Your task to perform on an android device: delete the emails in spam in the gmail app Image 0: 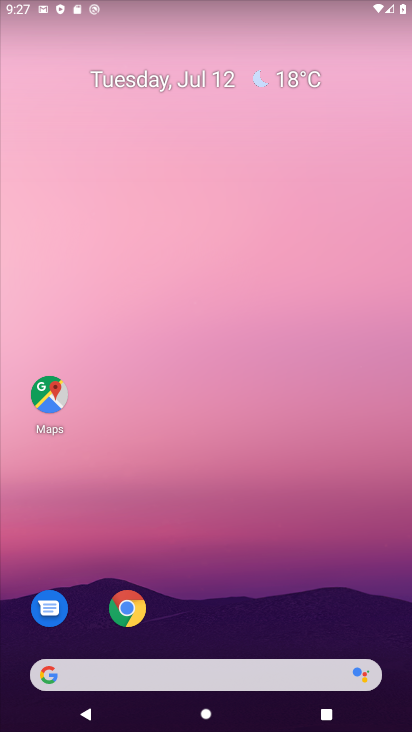
Step 0: drag from (263, 577) to (219, 171)
Your task to perform on an android device: delete the emails in spam in the gmail app Image 1: 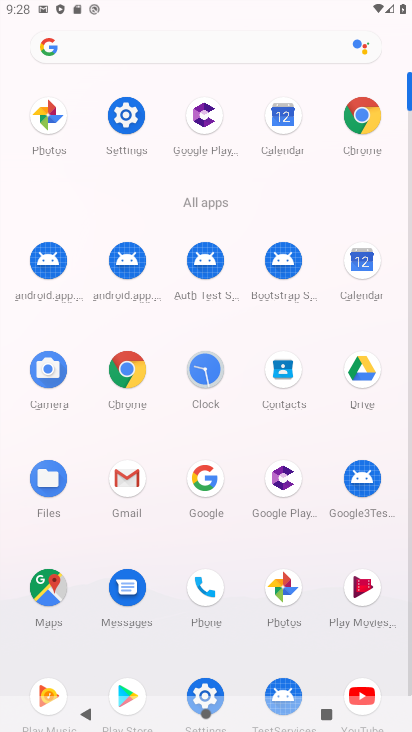
Step 1: click (120, 479)
Your task to perform on an android device: delete the emails in spam in the gmail app Image 2: 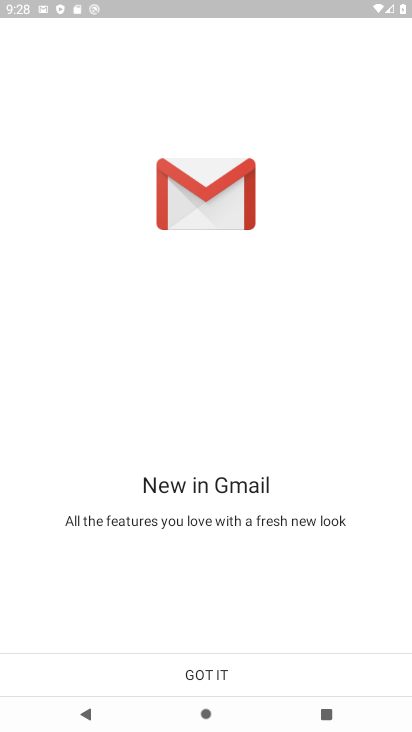
Step 2: click (204, 673)
Your task to perform on an android device: delete the emails in spam in the gmail app Image 3: 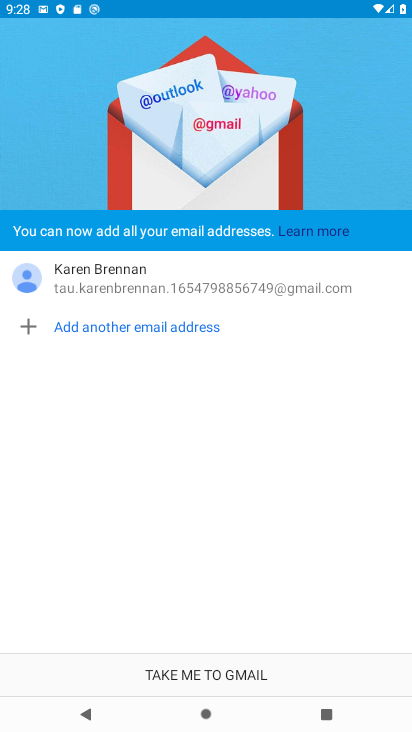
Step 3: click (204, 673)
Your task to perform on an android device: delete the emails in spam in the gmail app Image 4: 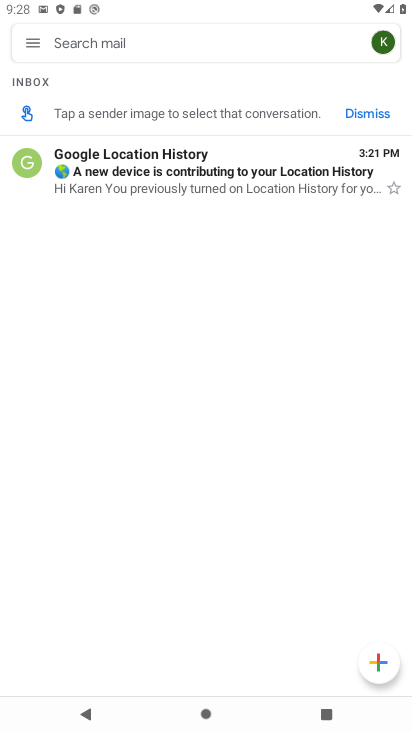
Step 4: click (34, 42)
Your task to perform on an android device: delete the emails in spam in the gmail app Image 5: 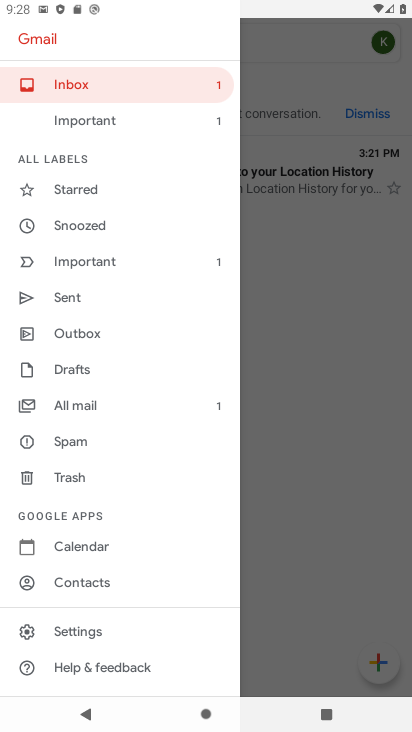
Step 5: click (66, 443)
Your task to perform on an android device: delete the emails in spam in the gmail app Image 6: 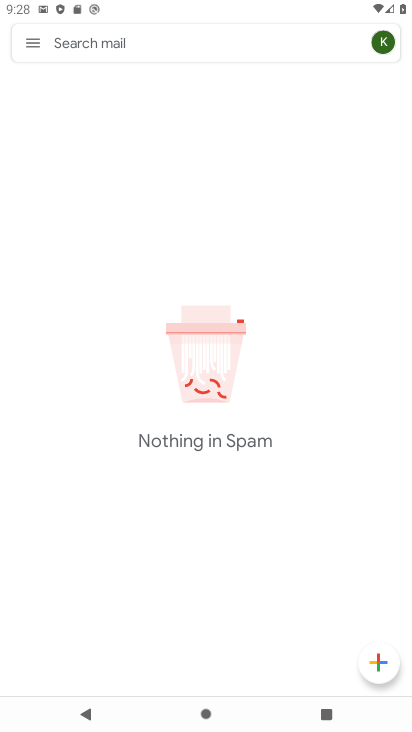
Step 6: task complete